Your task to perform on an android device: visit the assistant section in the google photos Image 0: 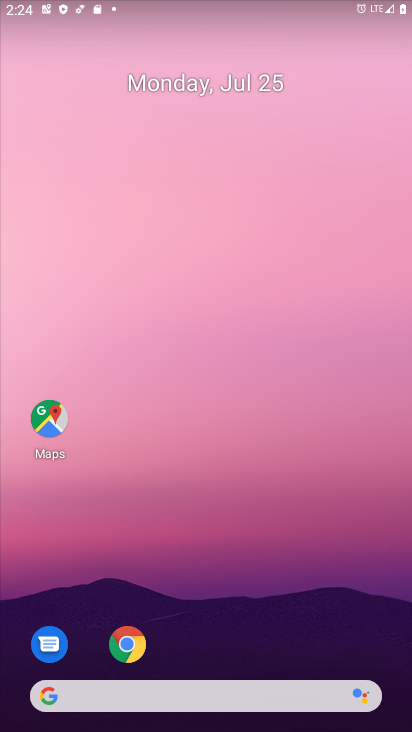
Step 0: drag from (358, 629) to (162, 16)
Your task to perform on an android device: visit the assistant section in the google photos Image 1: 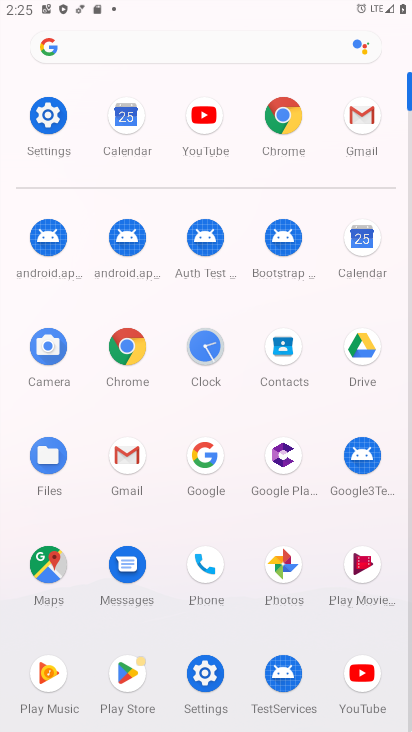
Step 1: click (274, 564)
Your task to perform on an android device: visit the assistant section in the google photos Image 2: 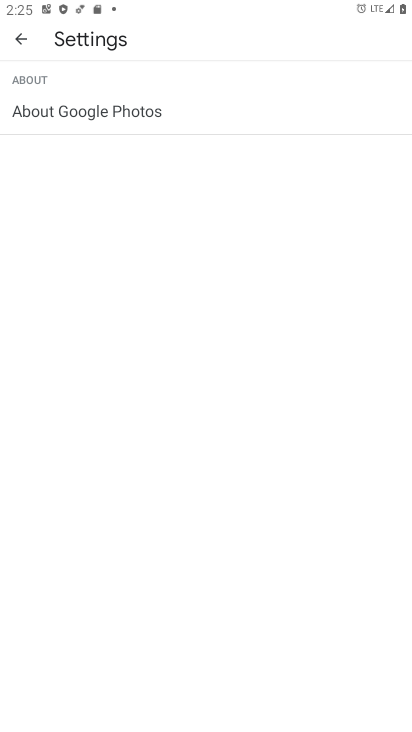
Step 2: press back button
Your task to perform on an android device: visit the assistant section in the google photos Image 3: 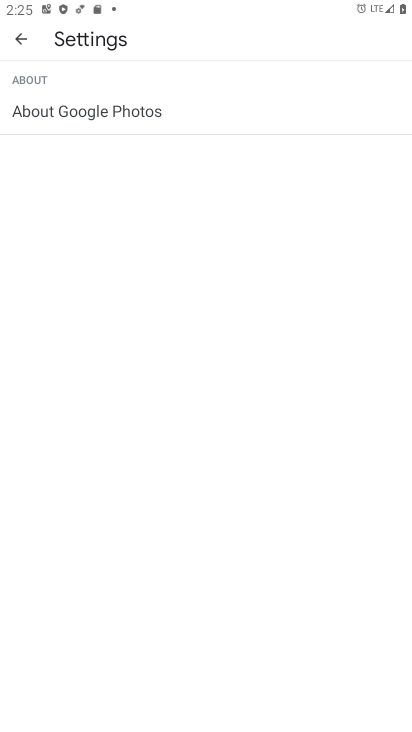
Step 3: press back button
Your task to perform on an android device: visit the assistant section in the google photos Image 4: 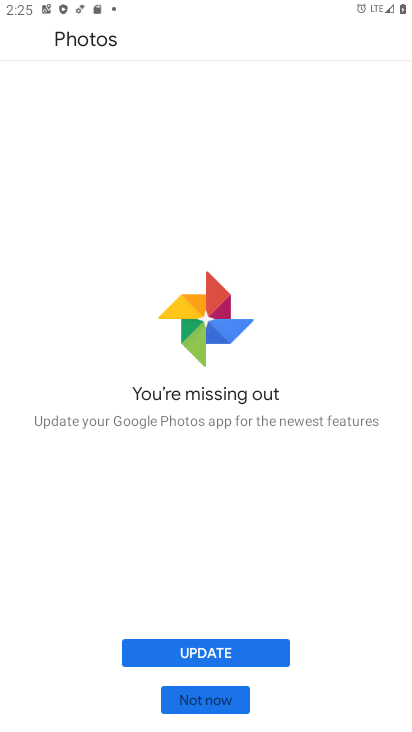
Step 4: click (256, 715)
Your task to perform on an android device: visit the assistant section in the google photos Image 5: 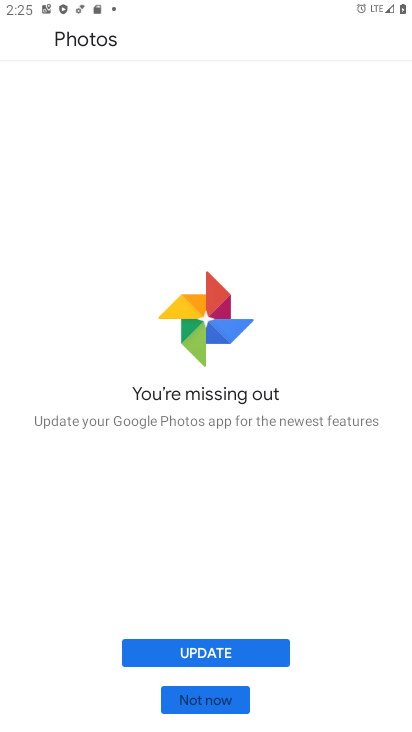
Step 5: click (206, 645)
Your task to perform on an android device: visit the assistant section in the google photos Image 6: 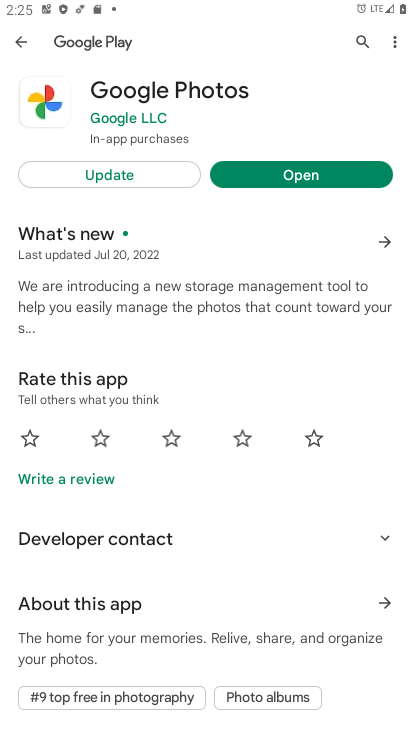
Step 6: click (139, 173)
Your task to perform on an android device: visit the assistant section in the google photos Image 7: 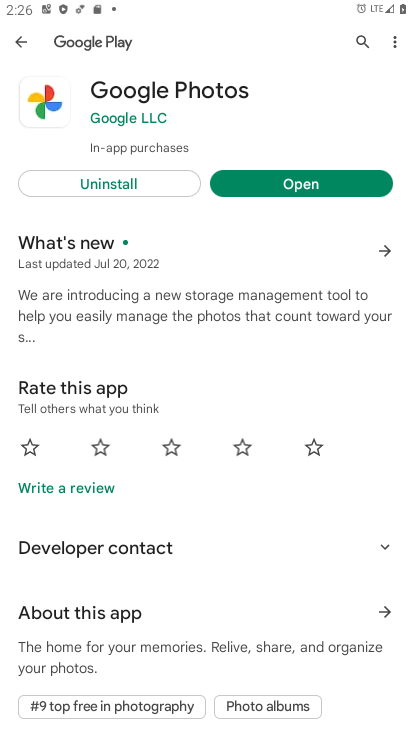
Step 7: click (248, 182)
Your task to perform on an android device: visit the assistant section in the google photos Image 8: 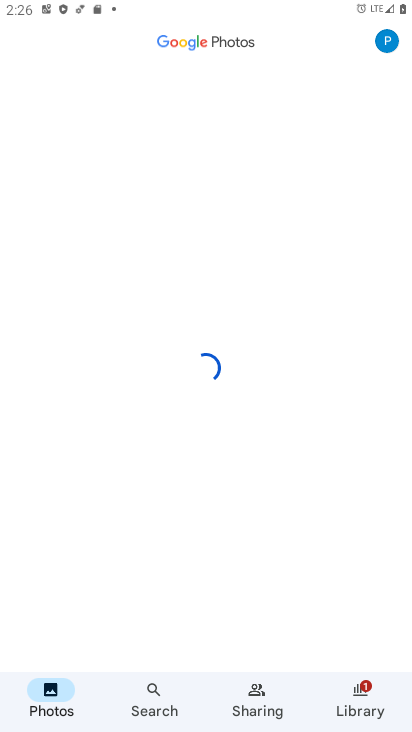
Step 8: task complete